Your task to perform on an android device: Go to display settings Image 0: 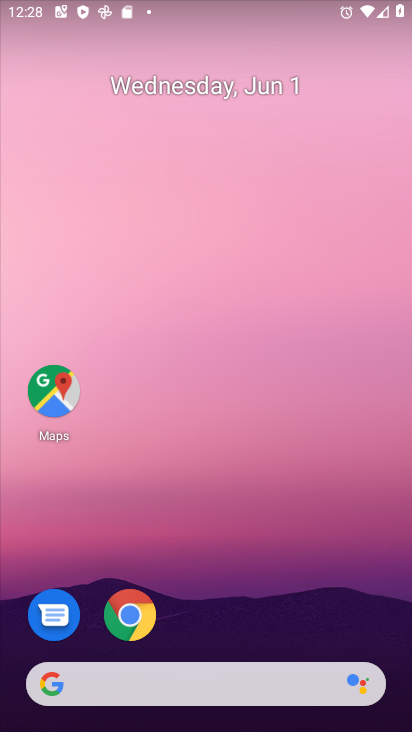
Step 0: drag from (332, 630) to (291, 65)
Your task to perform on an android device: Go to display settings Image 1: 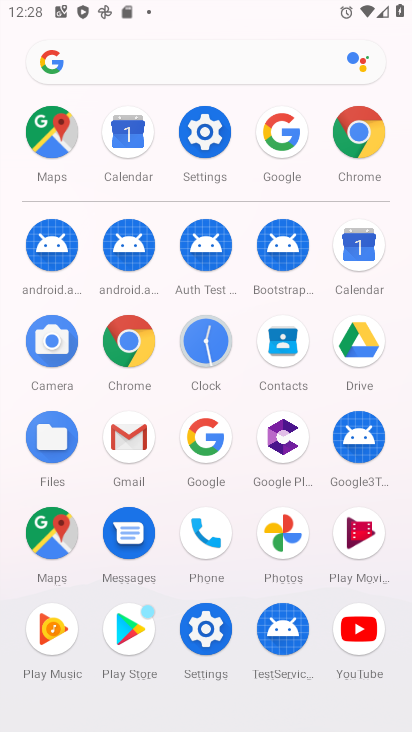
Step 1: click (213, 132)
Your task to perform on an android device: Go to display settings Image 2: 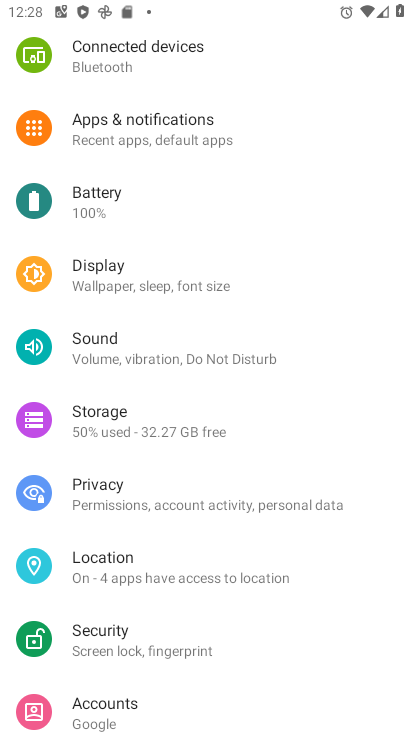
Step 2: click (130, 287)
Your task to perform on an android device: Go to display settings Image 3: 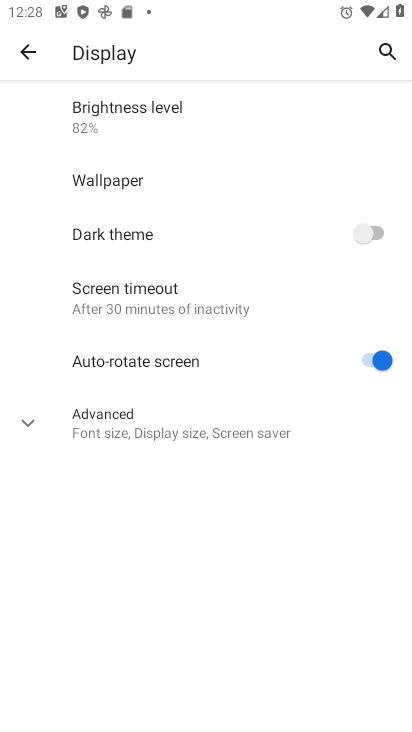
Step 3: task complete